Your task to perform on an android device: toggle pop-ups in chrome Image 0: 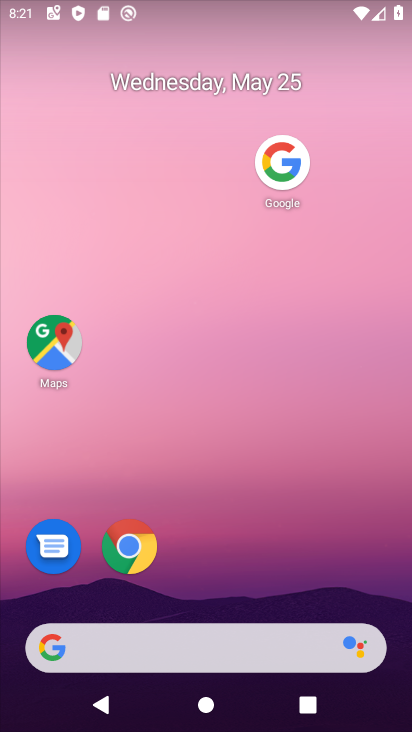
Step 0: click (123, 549)
Your task to perform on an android device: toggle pop-ups in chrome Image 1: 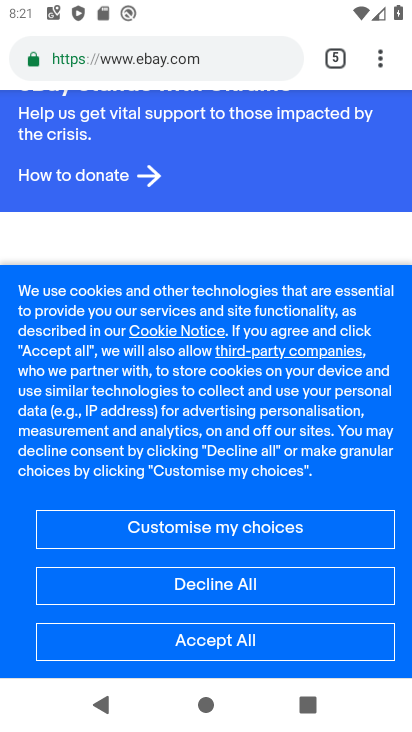
Step 1: drag from (384, 64) to (218, 575)
Your task to perform on an android device: toggle pop-ups in chrome Image 2: 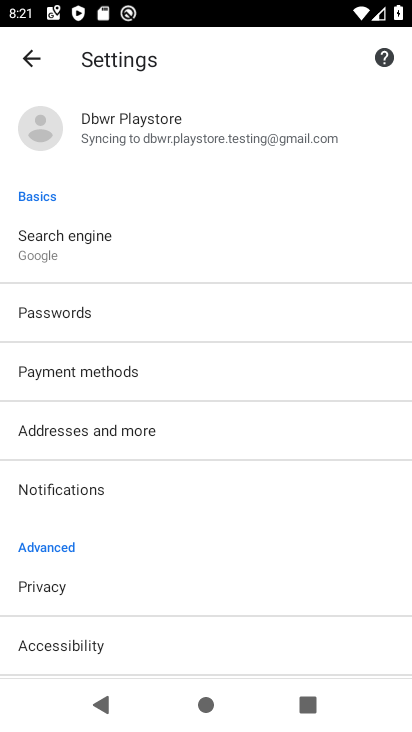
Step 2: drag from (200, 624) to (299, 255)
Your task to perform on an android device: toggle pop-ups in chrome Image 3: 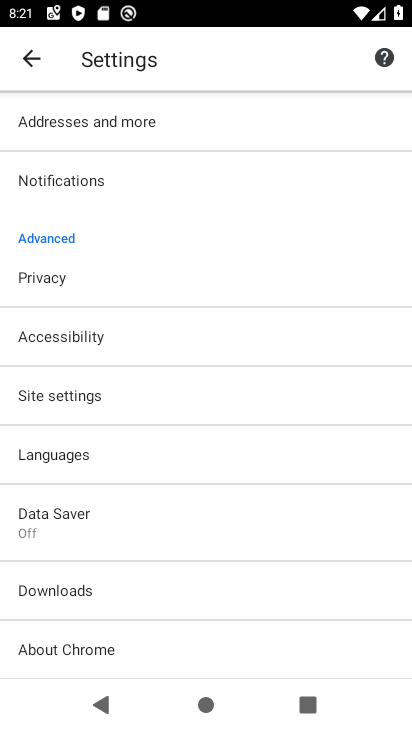
Step 3: click (112, 390)
Your task to perform on an android device: toggle pop-ups in chrome Image 4: 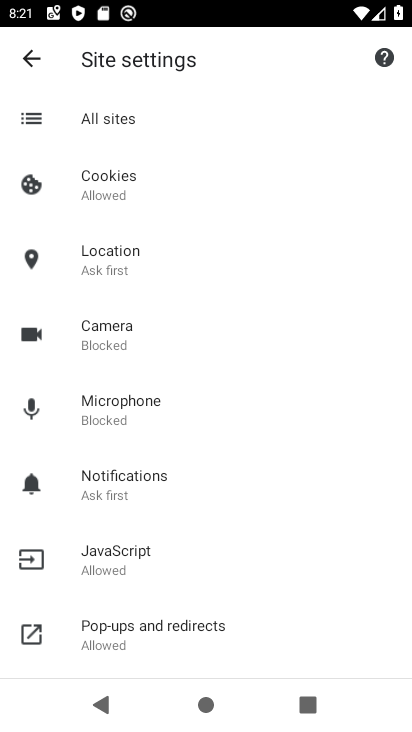
Step 4: click (174, 619)
Your task to perform on an android device: toggle pop-ups in chrome Image 5: 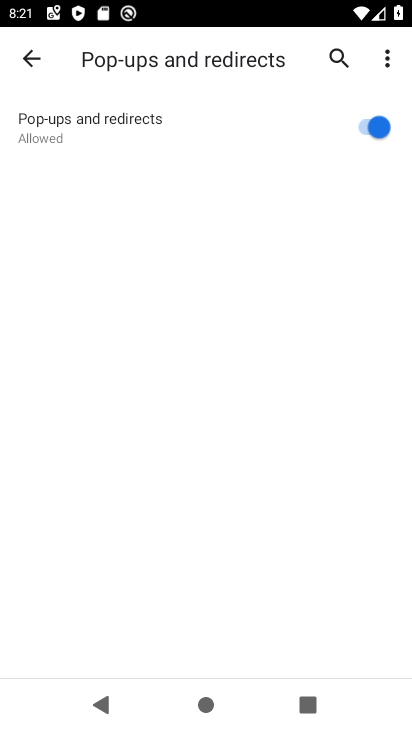
Step 5: click (371, 137)
Your task to perform on an android device: toggle pop-ups in chrome Image 6: 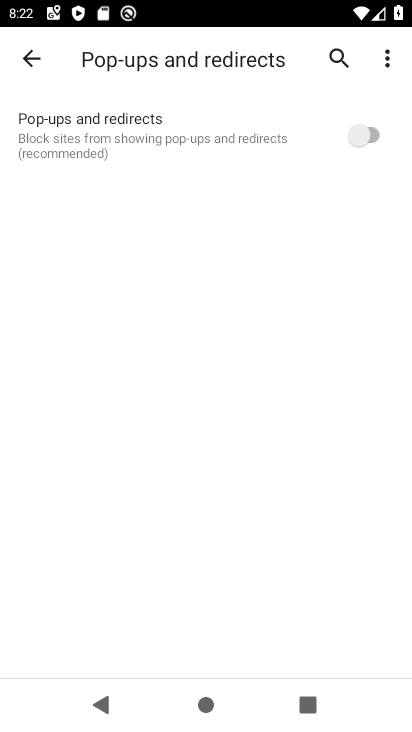
Step 6: task complete